Your task to perform on an android device: Open Google Maps and go to "Timeline" Image 0: 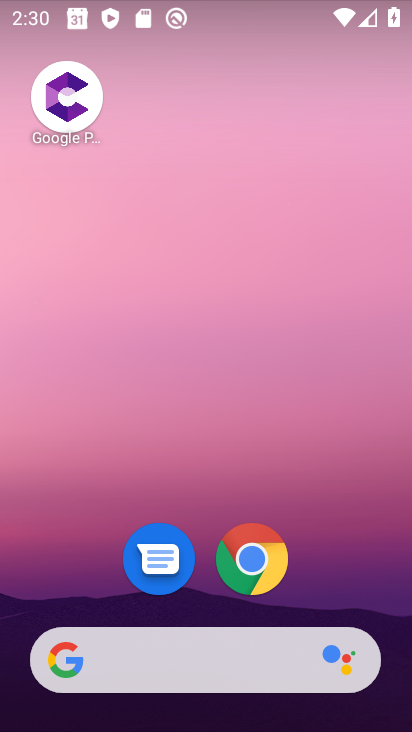
Step 0: drag from (335, 502) to (236, 5)
Your task to perform on an android device: Open Google Maps and go to "Timeline" Image 1: 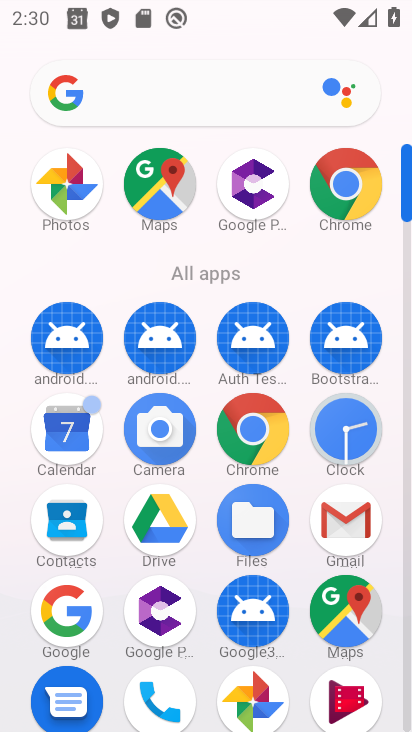
Step 1: click (161, 185)
Your task to perform on an android device: Open Google Maps and go to "Timeline" Image 2: 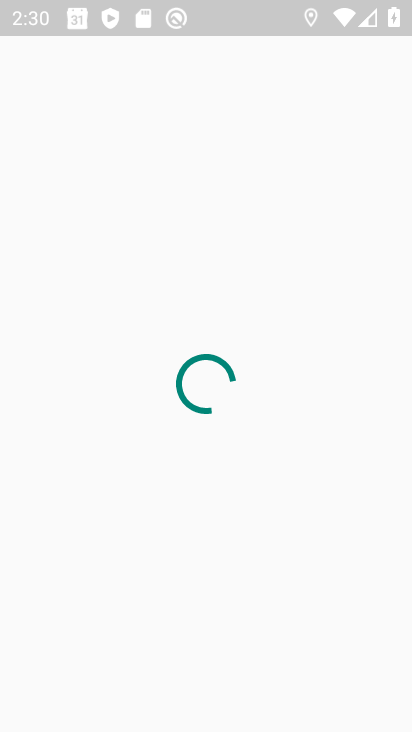
Step 2: click (369, 653)
Your task to perform on an android device: Open Google Maps and go to "Timeline" Image 3: 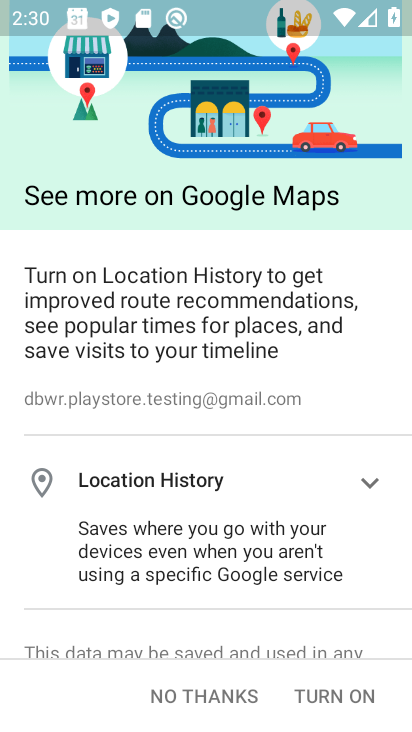
Step 3: click (187, 688)
Your task to perform on an android device: Open Google Maps and go to "Timeline" Image 4: 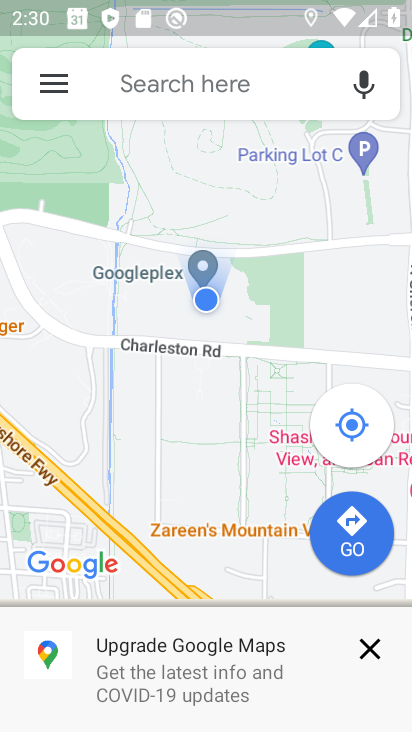
Step 4: click (57, 88)
Your task to perform on an android device: Open Google Maps and go to "Timeline" Image 5: 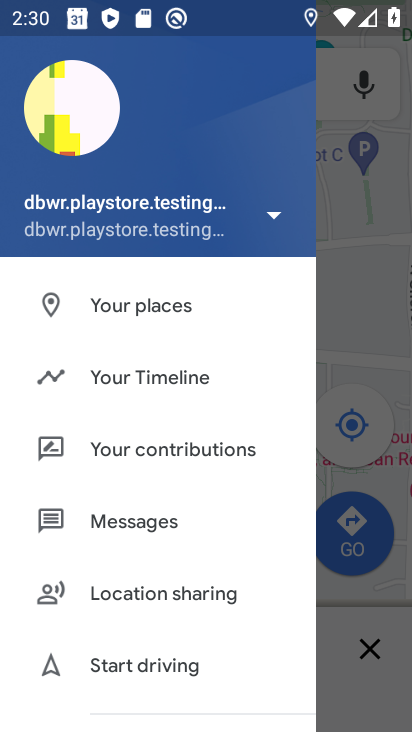
Step 5: click (135, 382)
Your task to perform on an android device: Open Google Maps and go to "Timeline" Image 6: 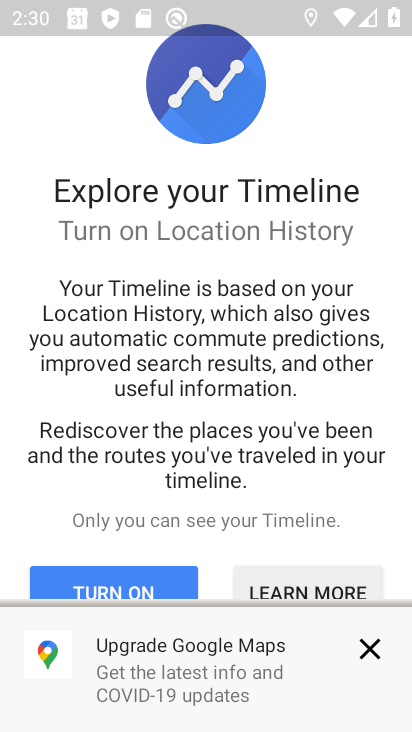
Step 6: click (364, 647)
Your task to perform on an android device: Open Google Maps and go to "Timeline" Image 7: 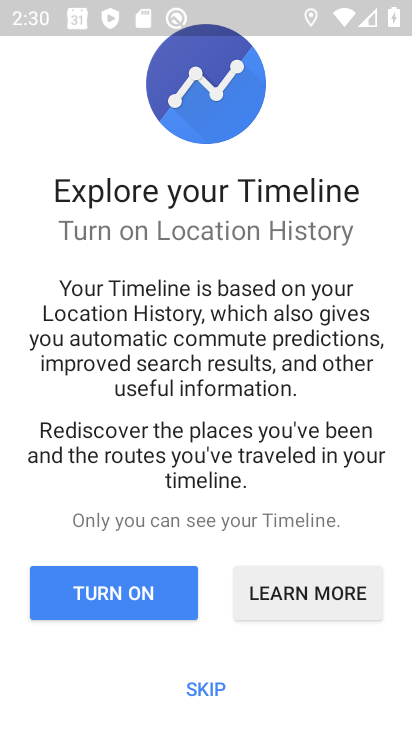
Step 7: click (215, 687)
Your task to perform on an android device: Open Google Maps and go to "Timeline" Image 8: 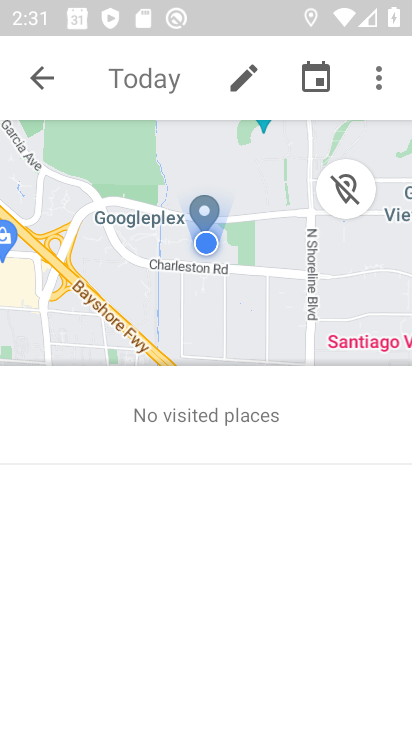
Step 8: task complete